Your task to perform on an android device: check storage Image 0: 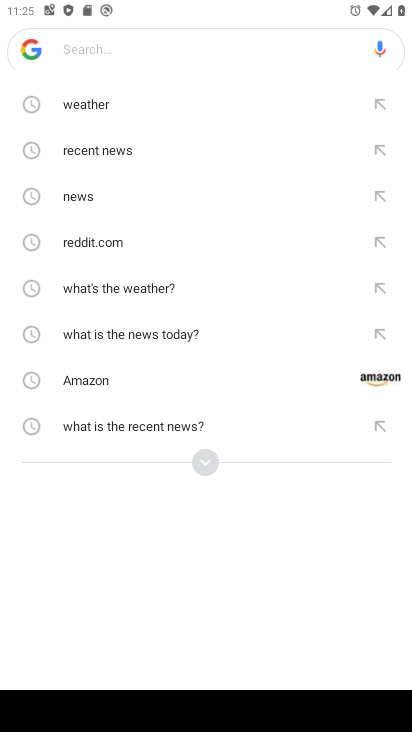
Step 0: press home button
Your task to perform on an android device: check storage Image 1: 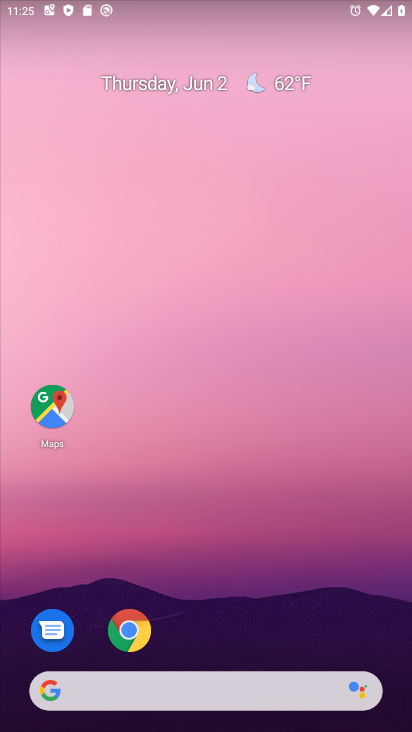
Step 1: drag from (114, 684) to (265, 55)
Your task to perform on an android device: check storage Image 2: 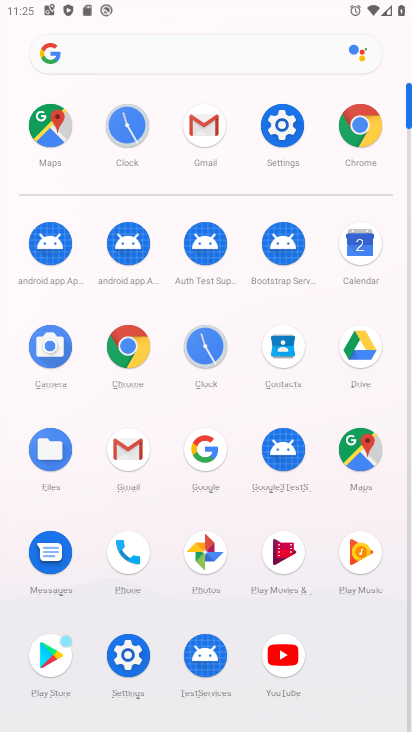
Step 2: click (285, 126)
Your task to perform on an android device: check storage Image 3: 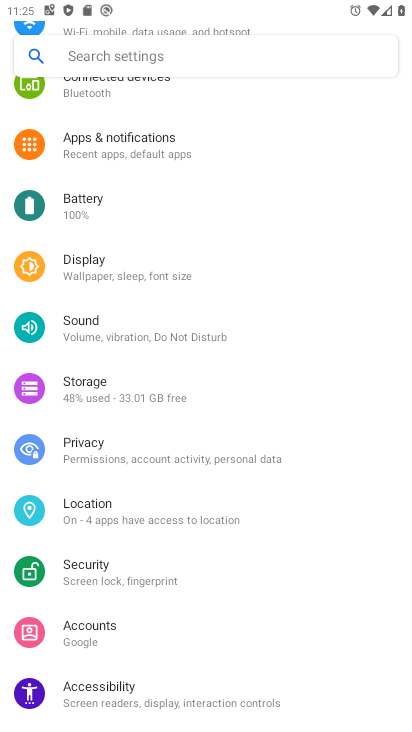
Step 3: click (106, 398)
Your task to perform on an android device: check storage Image 4: 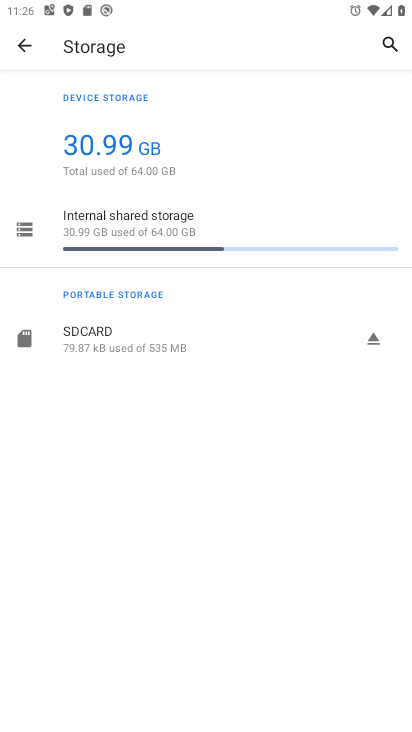
Step 4: task complete